Your task to perform on an android device: Search for Mexican restaurants on Maps Image 0: 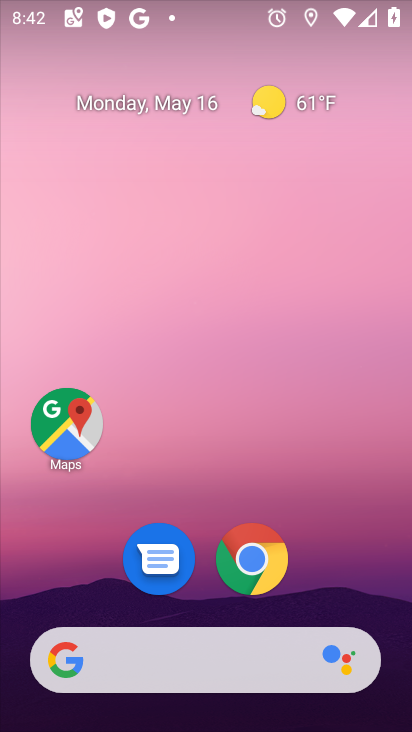
Step 0: drag from (384, 590) to (368, 146)
Your task to perform on an android device: Search for Mexican restaurants on Maps Image 1: 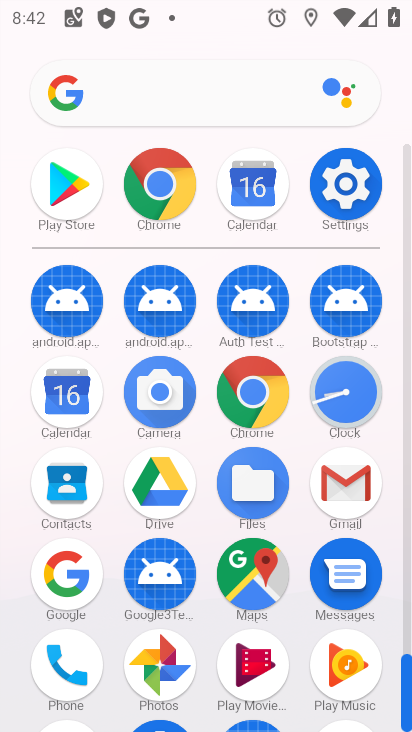
Step 1: click (239, 579)
Your task to perform on an android device: Search for Mexican restaurants on Maps Image 2: 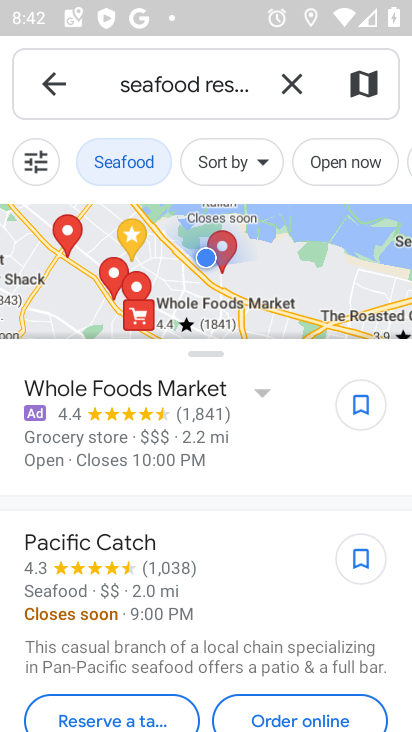
Step 2: click (289, 93)
Your task to perform on an android device: Search for Mexican restaurants on Maps Image 3: 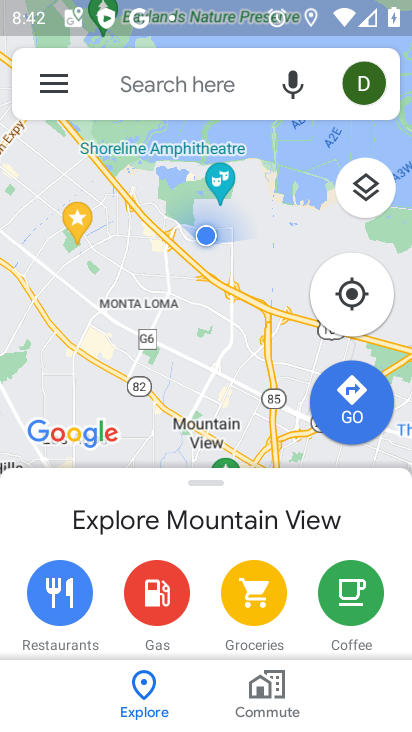
Step 3: click (210, 94)
Your task to perform on an android device: Search for Mexican restaurants on Maps Image 4: 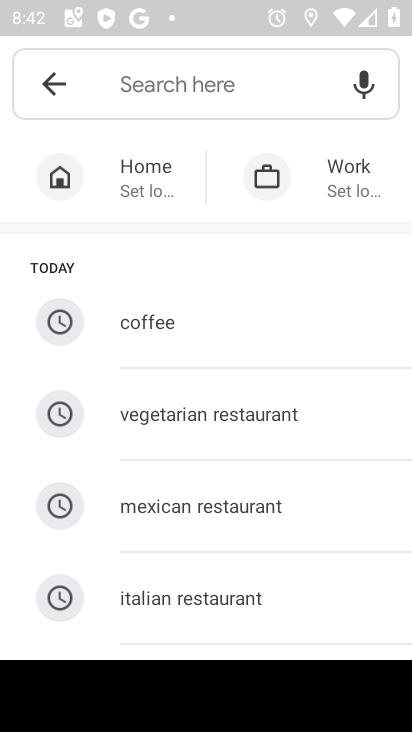
Step 4: click (267, 513)
Your task to perform on an android device: Search for Mexican restaurants on Maps Image 5: 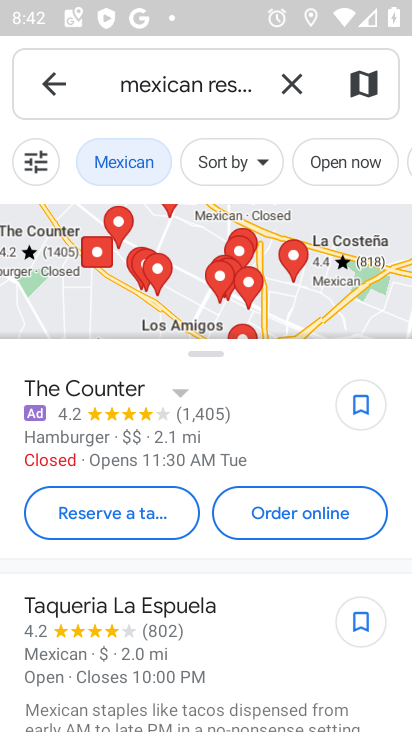
Step 5: task complete